Your task to perform on an android device: turn off smart reply in the gmail app Image 0: 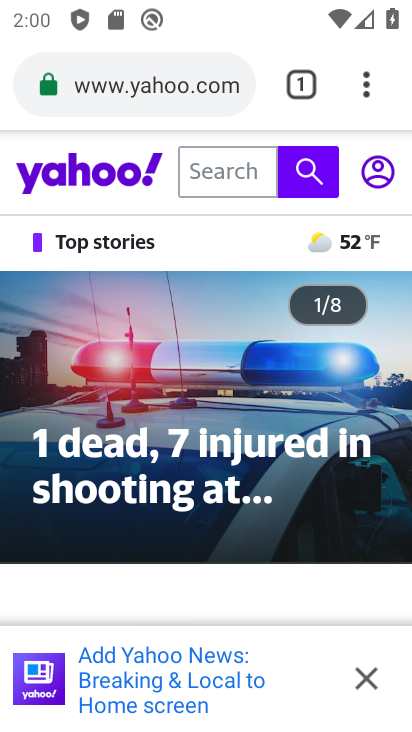
Step 0: press home button
Your task to perform on an android device: turn off smart reply in the gmail app Image 1: 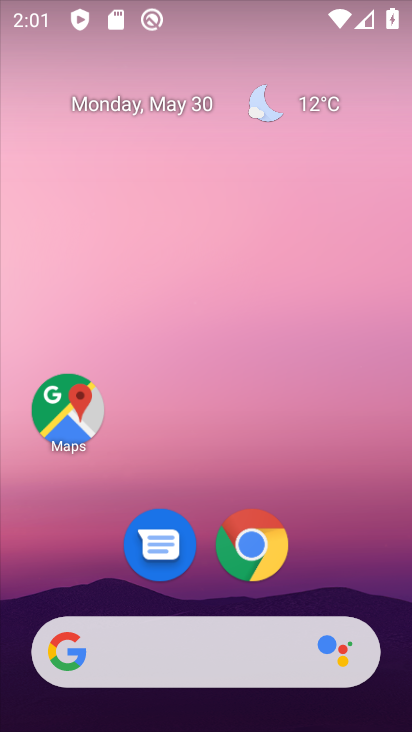
Step 1: drag from (181, 585) to (217, 57)
Your task to perform on an android device: turn off smart reply in the gmail app Image 2: 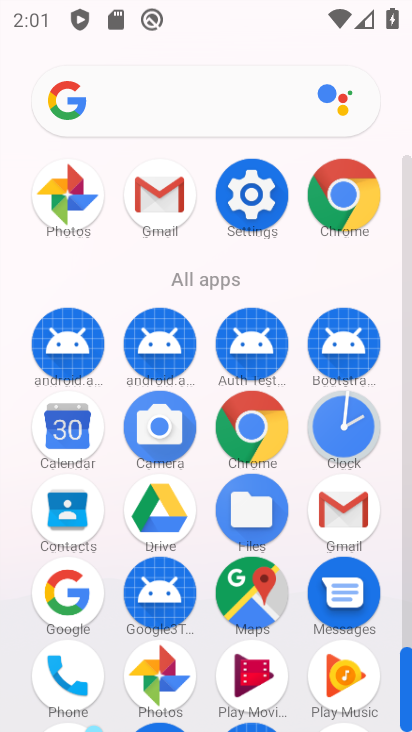
Step 2: click (161, 183)
Your task to perform on an android device: turn off smart reply in the gmail app Image 3: 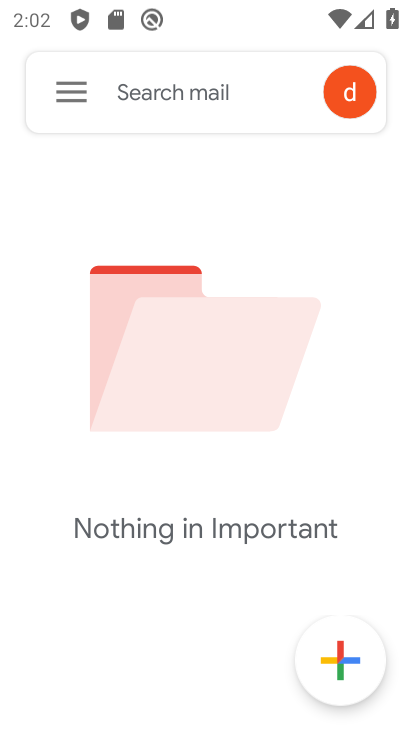
Step 3: click (86, 104)
Your task to perform on an android device: turn off smart reply in the gmail app Image 4: 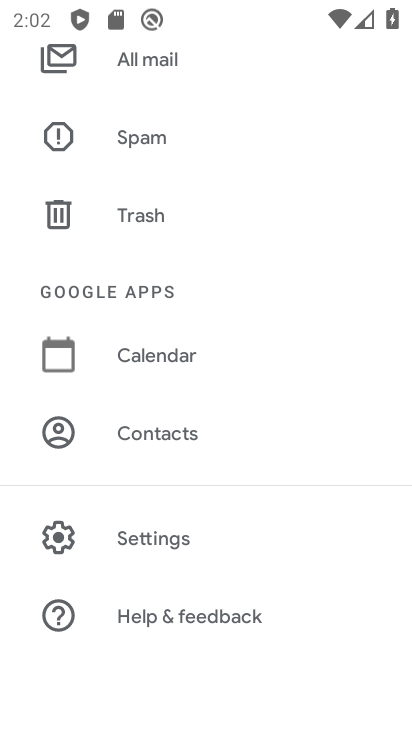
Step 4: click (133, 544)
Your task to perform on an android device: turn off smart reply in the gmail app Image 5: 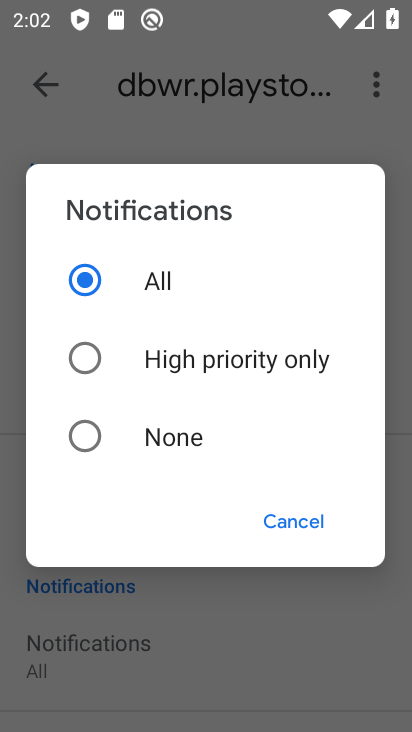
Step 5: click (281, 518)
Your task to perform on an android device: turn off smart reply in the gmail app Image 6: 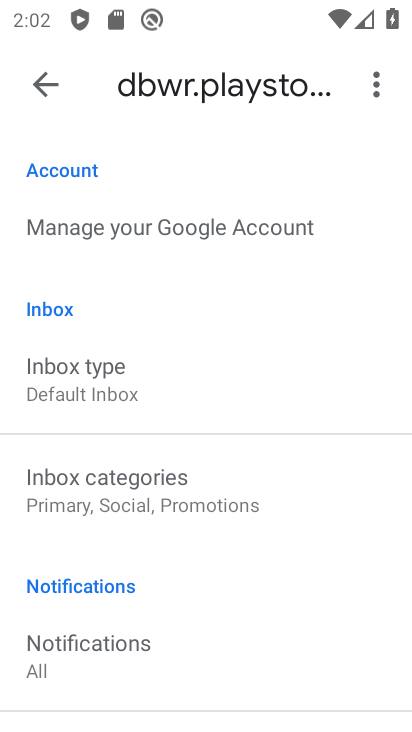
Step 6: drag from (141, 672) to (192, 113)
Your task to perform on an android device: turn off smart reply in the gmail app Image 7: 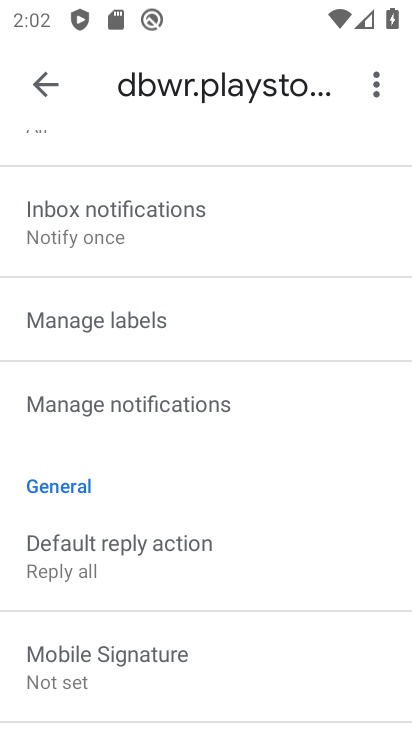
Step 7: drag from (107, 605) to (144, 112)
Your task to perform on an android device: turn off smart reply in the gmail app Image 8: 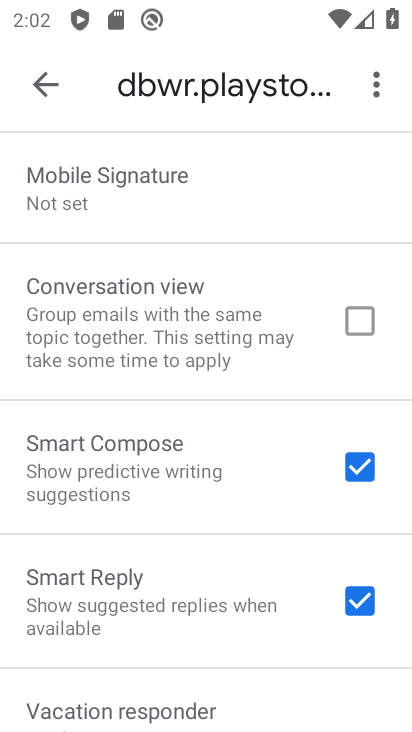
Step 8: drag from (295, 464) to (317, 260)
Your task to perform on an android device: turn off smart reply in the gmail app Image 9: 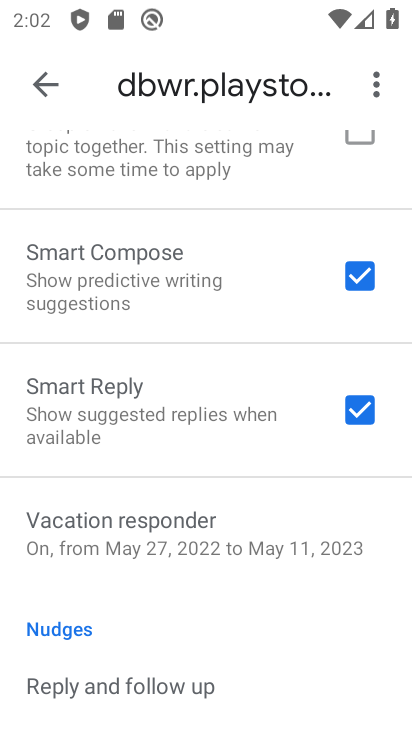
Step 9: click (356, 605)
Your task to perform on an android device: turn off smart reply in the gmail app Image 10: 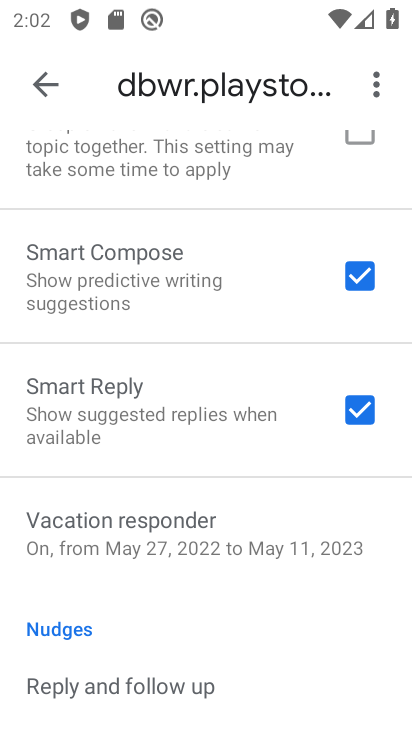
Step 10: task complete